Your task to perform on an android device: open app "File Manager" (install if not already installed) Image 0: 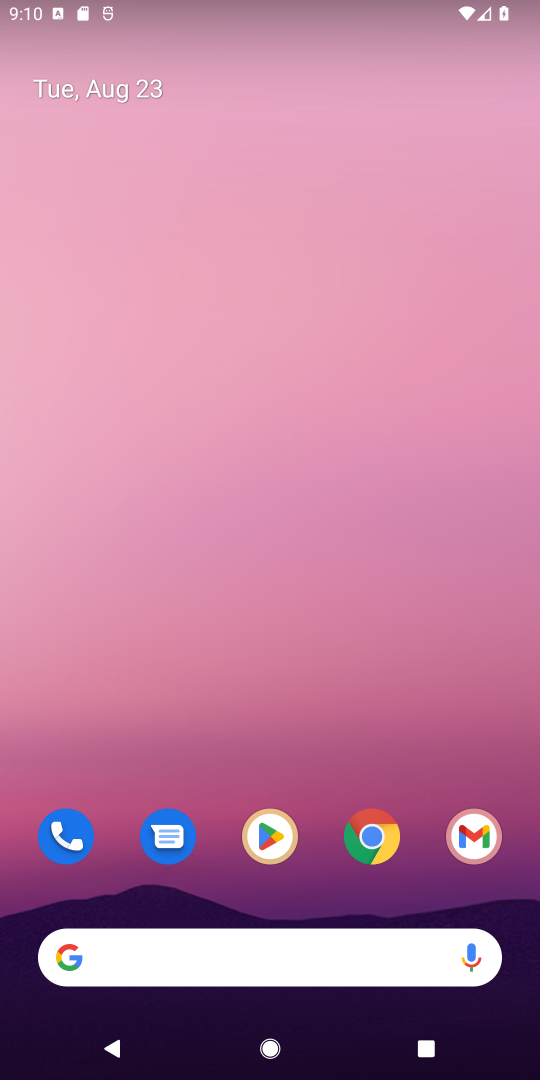
Step 0: click (282, 834)
Your task to perform on an android device: open app "File Manager" (install if not already installed) Image 1: 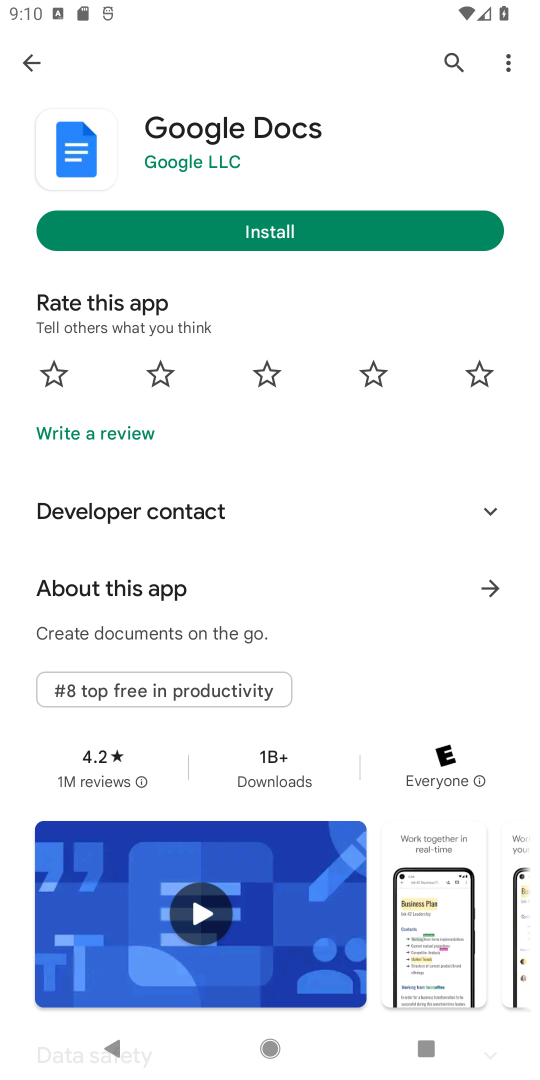
Step 1: click (453, 52)
Your task to perform on an android device: open app "File Manager" (install if not already installed) Image 2: 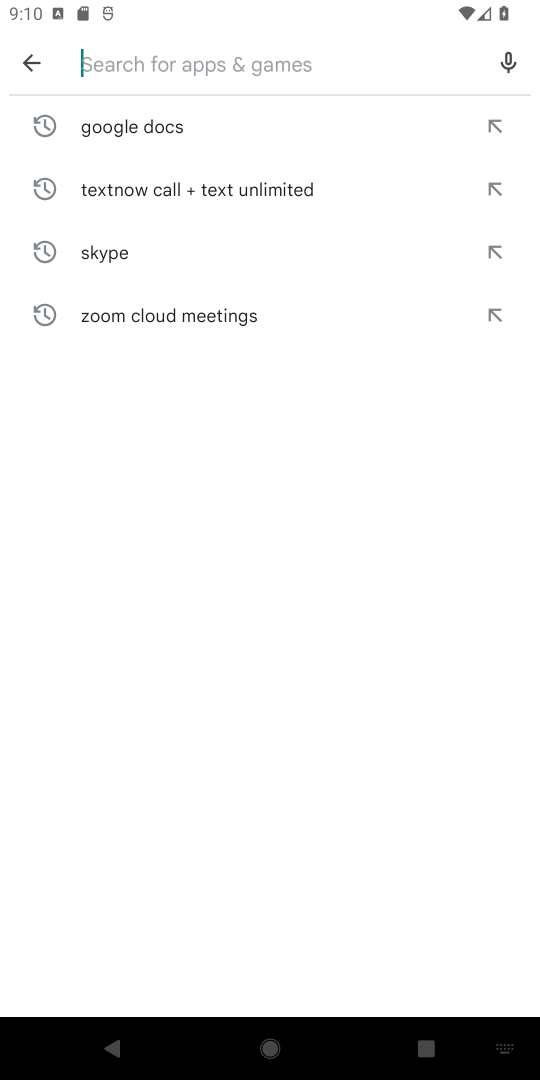
Step 2: type "File Manager"
Your task to perform on an android device: open app "File Manager" (install if not already installed) Image 3: 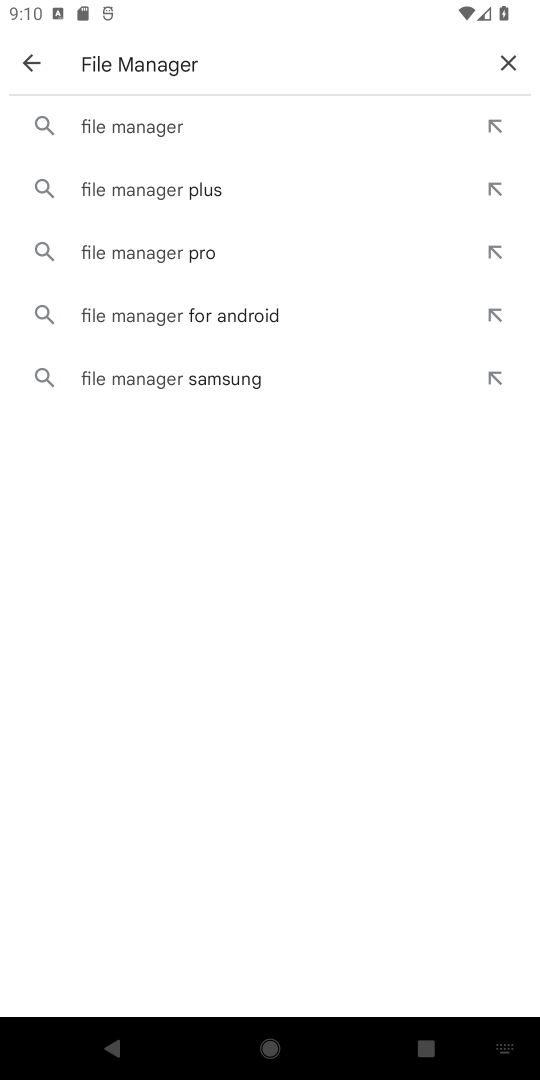
Step 3: click (139, 145)
Your task to perform on an android device: open app "File Manager" (install if not already installed) Image 4: 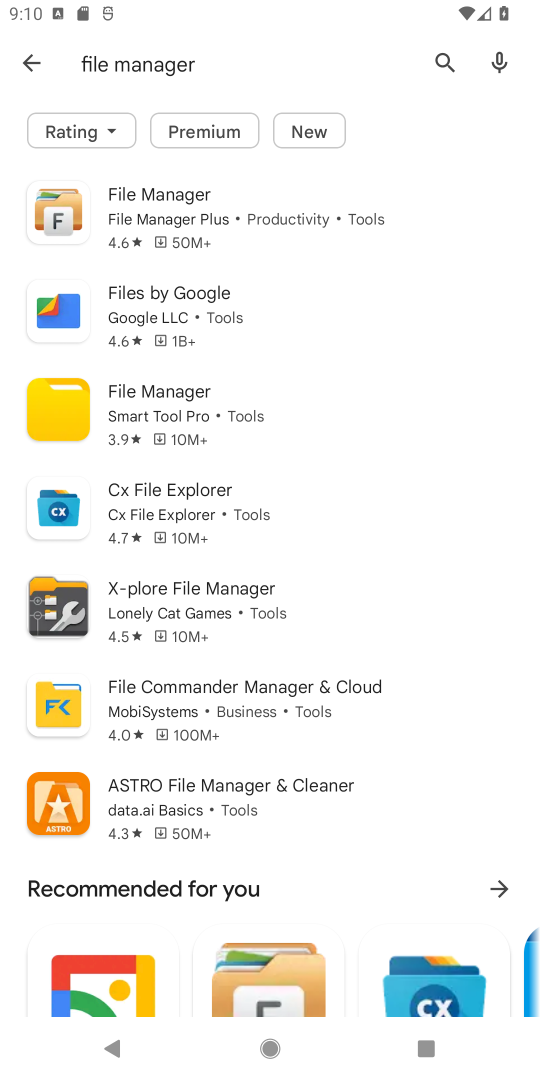
Step 4: click (152, 202)
Your task to perform on an android device: open app "File Manager" (install if not already installed) Image 5: 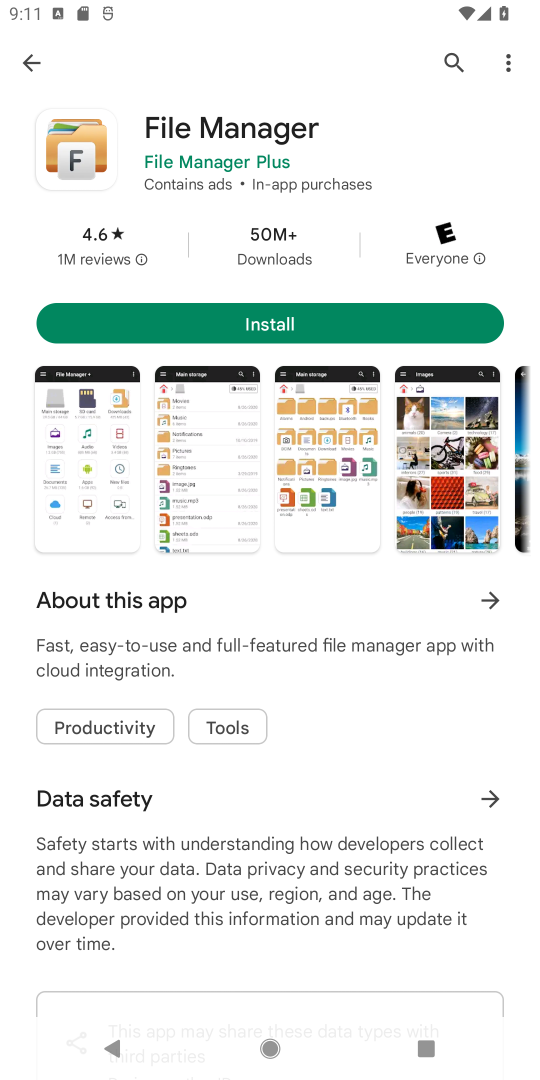
Step 5: click (288, 327)
Your task to perform on an android device: open app "File Manager" (install if not already installed) Image 6: 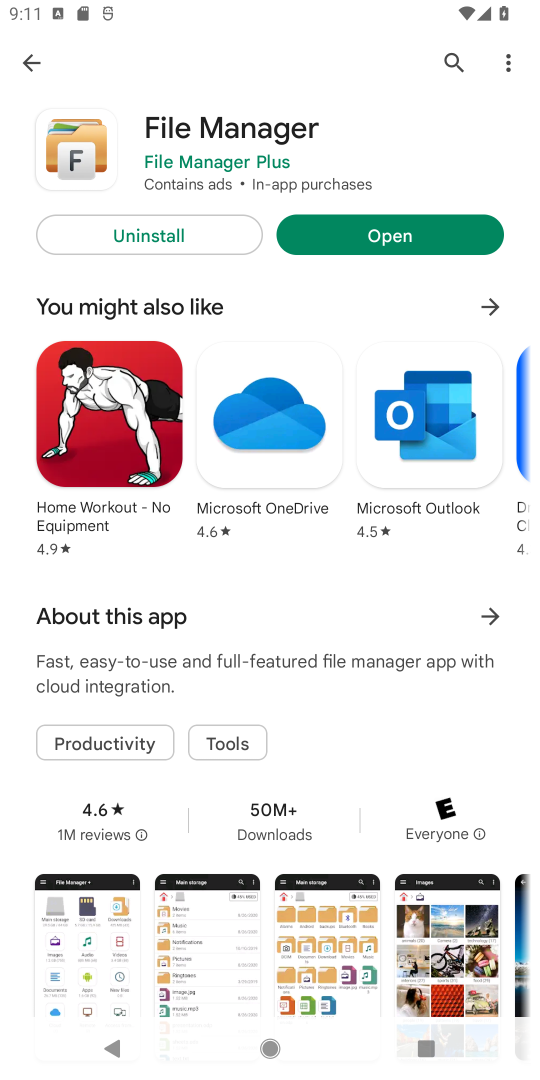
Step 6: click (412, 231)
Your task to perform on an android device: open app "File Manager" (install if not already installed) Image 7: 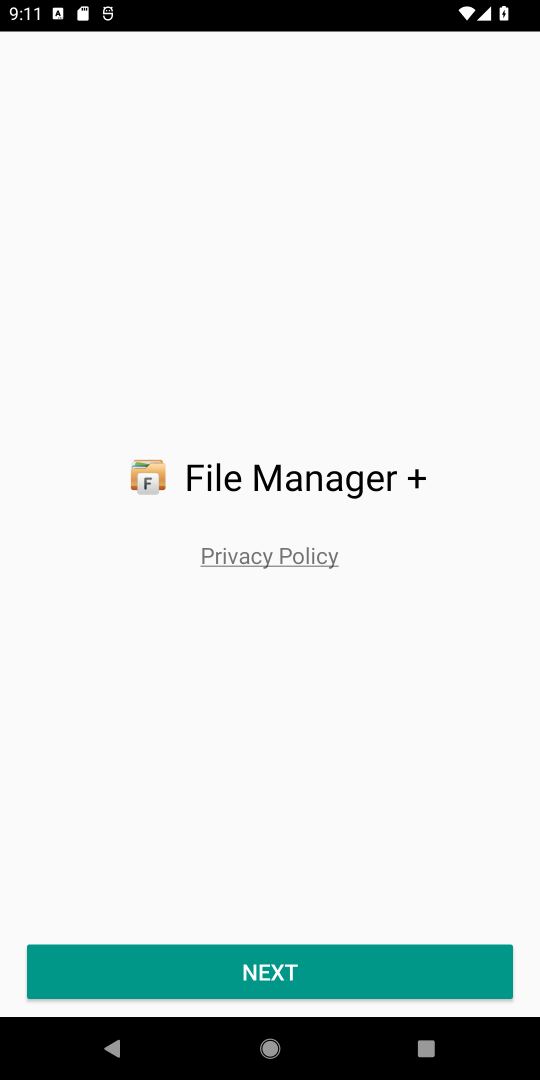
Step 7: task complete